Your task to perform on an android device: Show me the alarms in the clock app Image 0: 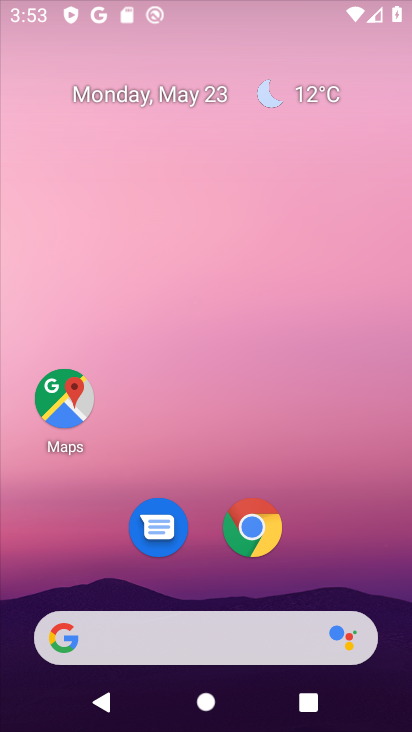
Step 0: press home button
Your task to perform on an android device: Show me the alarms in the clock app Image 1: 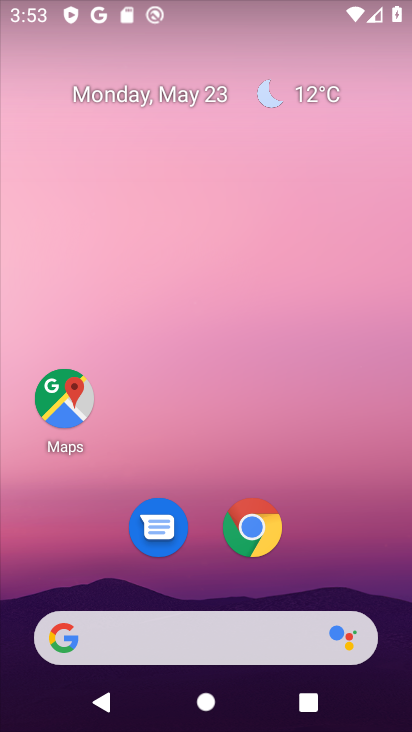
Step 1: drag from (202, 576) to (209, 12)
Your task to perform on an android device: Show me the alarms in the clock app Image 2: 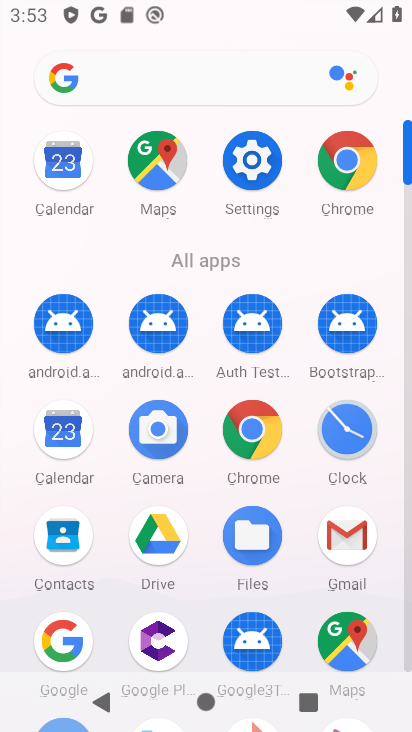
Step 2: click (344, 424)
Your task to perform on an android device: Show me the alarms in the clock app Image 3: 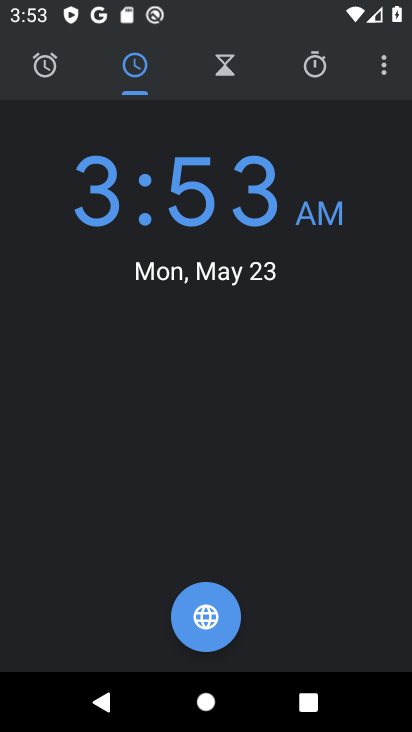
Step 3: click (45, 55)
Your task to perform on an android device: Show me the alarms in the clock app Image 4: 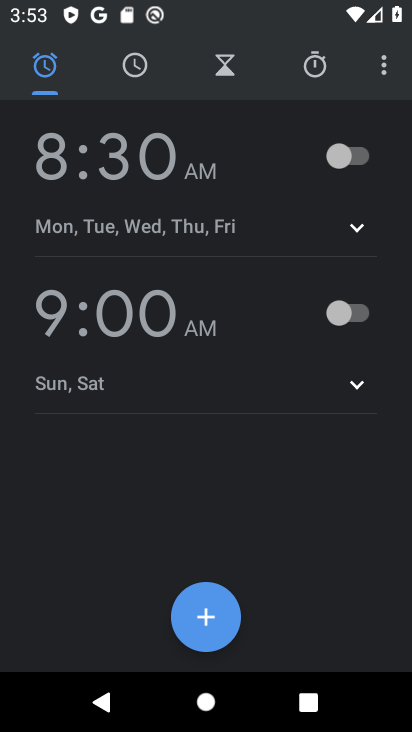
Step 4: click (355, 151)
Your task to perform on an android device: Show me the alarms in the clock app Image 5: 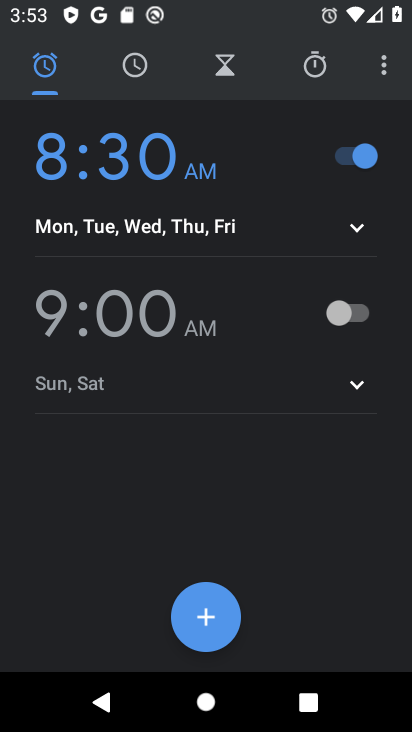
Step 5: task complete